Your task to perform on an android device: turn on priority inbox in the gmail app Image 0: 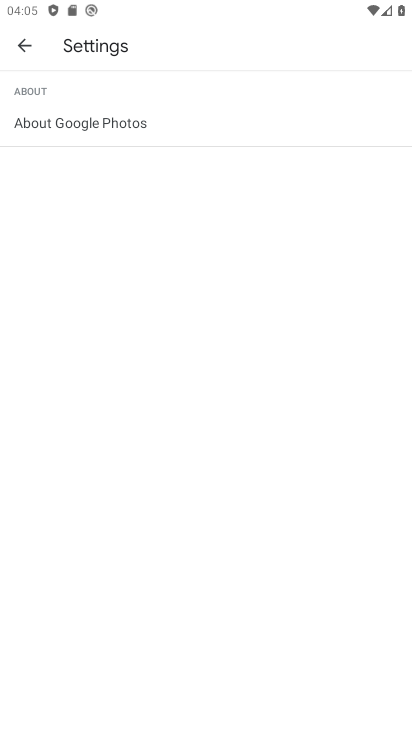
Step 0: press home button
Your task to perform on an android device: turn on priority inbox in the gmail app Image 1: 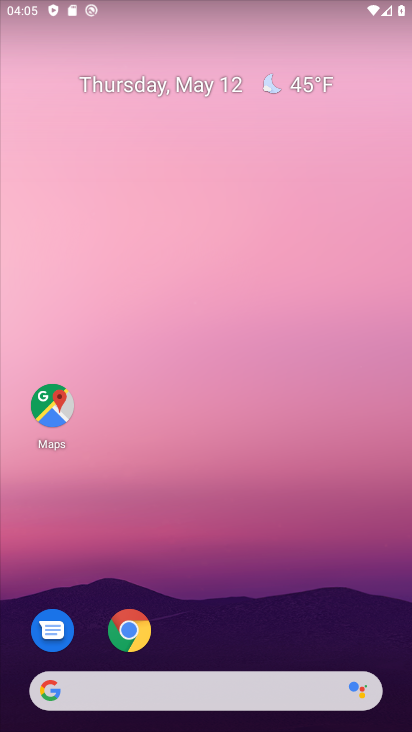
Step 1: drag from (199, 625) to (210, 232)
Your task to perform on an android device: turn on priority inbox in the gmail app Image 2: 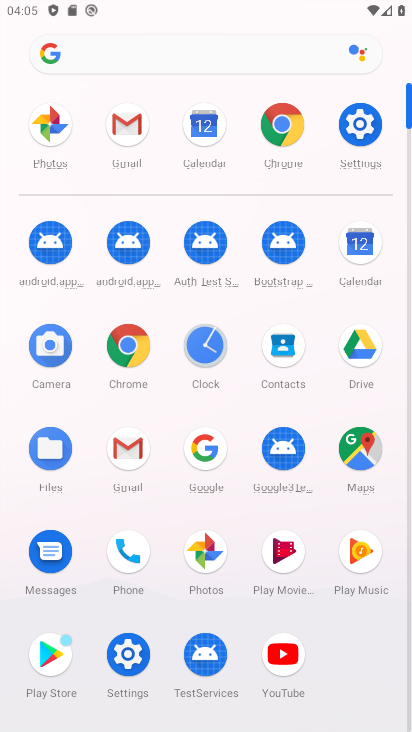
Step 2: click (117, 460)
Your task to perform on an android device: turn on priority inbox in the gmail app Image 3: 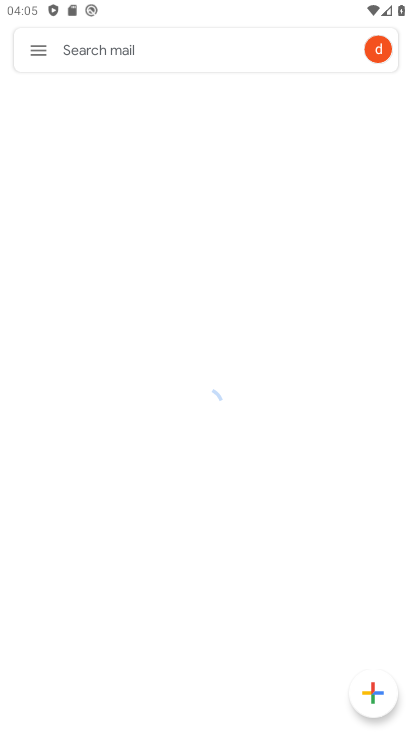
Step 3: click (43, 39)
Your task to perform on an android device: turn on priority inbox in the gmail app Image 4: 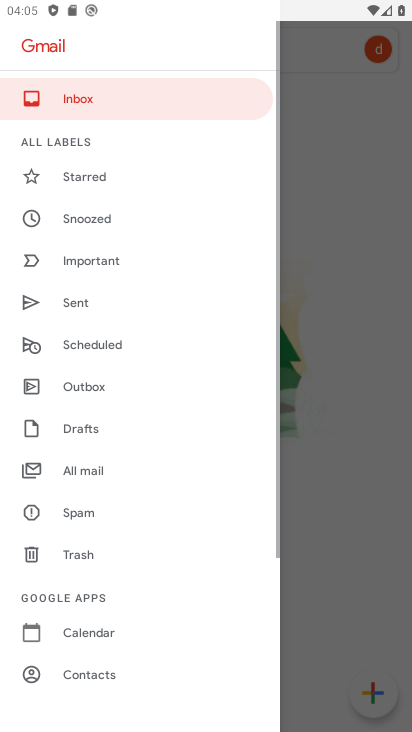
Step 4: drag from (142, 641) to (141, 232)
Your task to perform on an android device: turn on priority inbox in the gmail app Image 5: 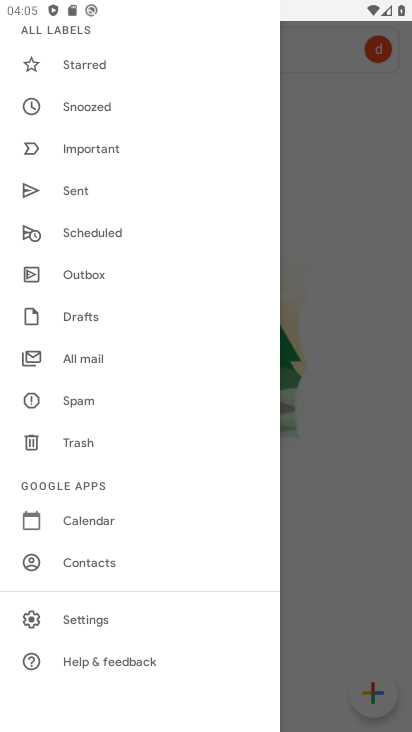
Step 5: drag from (75, 636) to (120, 224)
Your task to perform on an android device: turn on priority inbox in the gmail app Image 6: 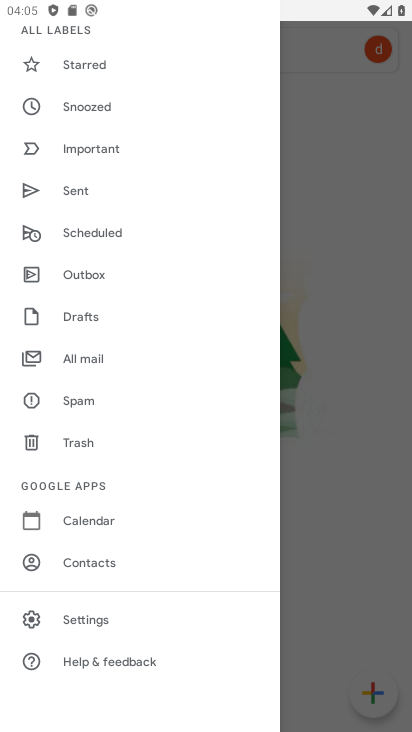
Step 6: click (94, 625)
Your task to perform on an android device: turn on priority inbox in the gmail app Image 7: 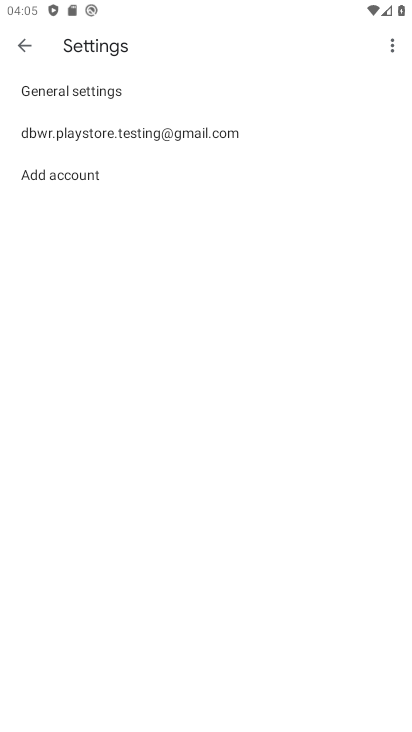
Step 7: click (85, 140)
Your task to perform on an android device: turn on priority inbox in the gmail app Image 8: 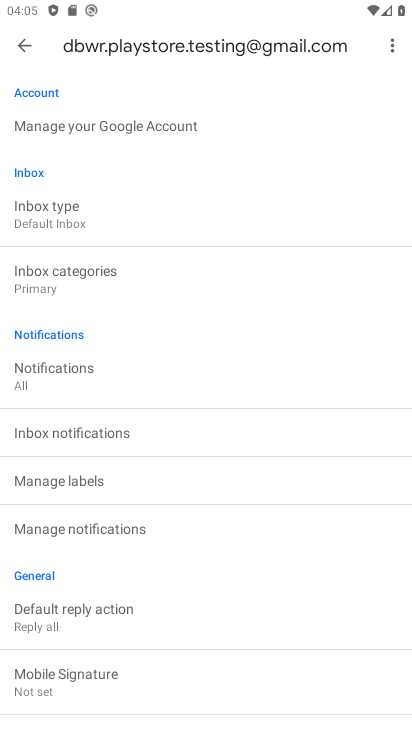
Step 8: click (84, 227)
Your task to perform on an android device: turn on priority inbox in the gmail app Image 9: 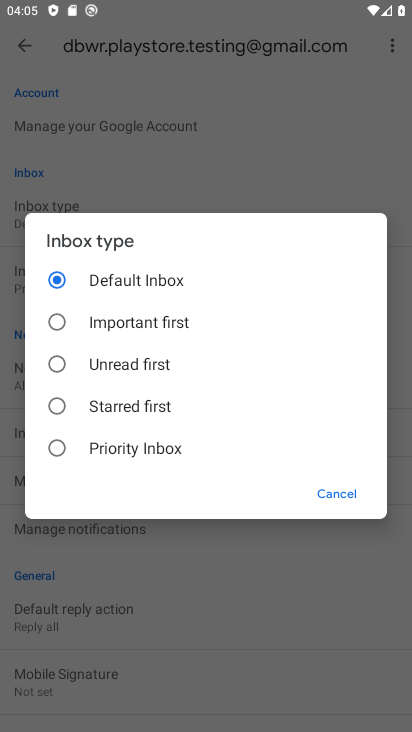
Step 9: click (111, 449)
Your task to perform on an android device: turn on priority inbox in the gmail app Image 10: 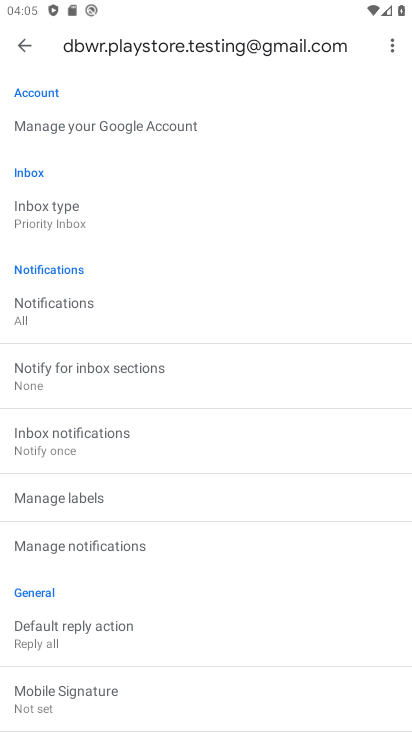
Step 10: task complete